Your task to perform on an android device: turn off data saver in the chrome app Image 0: 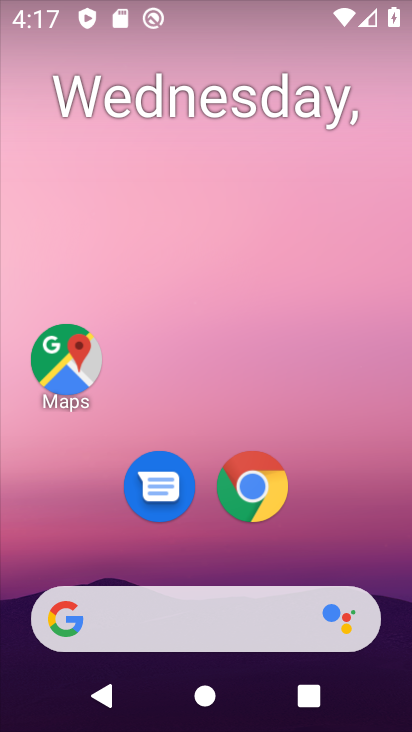
Step 0: click (250, 486)
Your task to perform on an android device: turn off data saver in the chrome app Image 1: 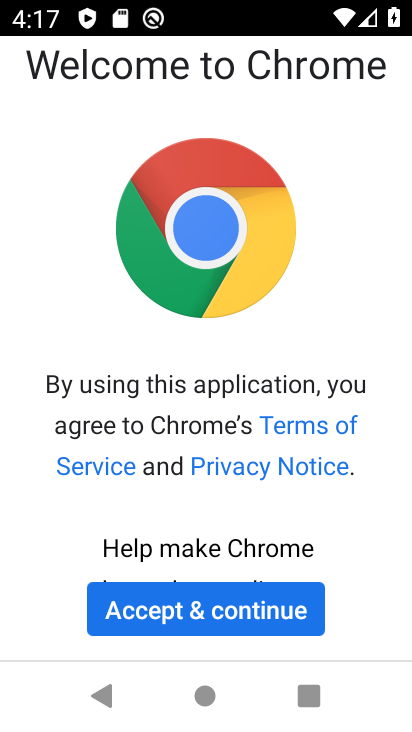
Step 1: click (213, 614)
Your task to perform on an android device: turn off data saver in the chrome app Image 2: 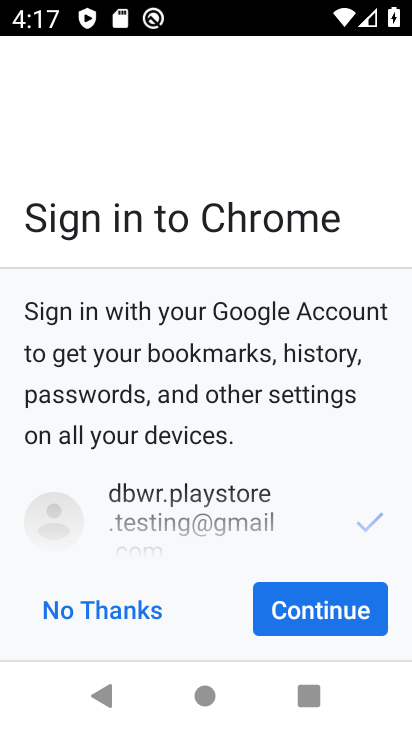
Step 2: click (300, 607)
Your task to perform on an android device: turn off data saver in the chrome app Image 3: 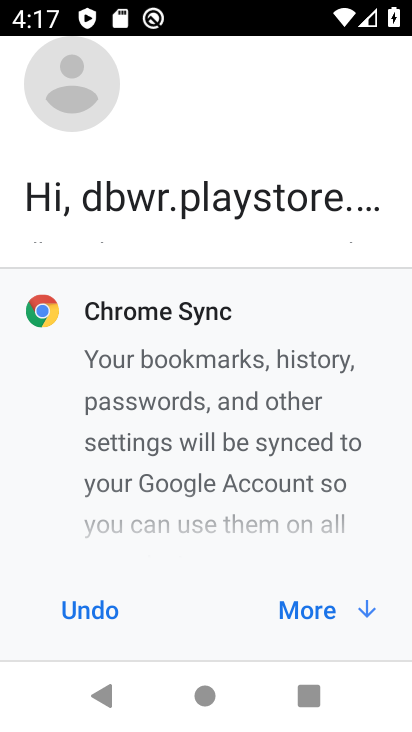
Step 3: click (300, 607)
Your task to perform on an android device: turn off data saver in the chrome app Image 4: 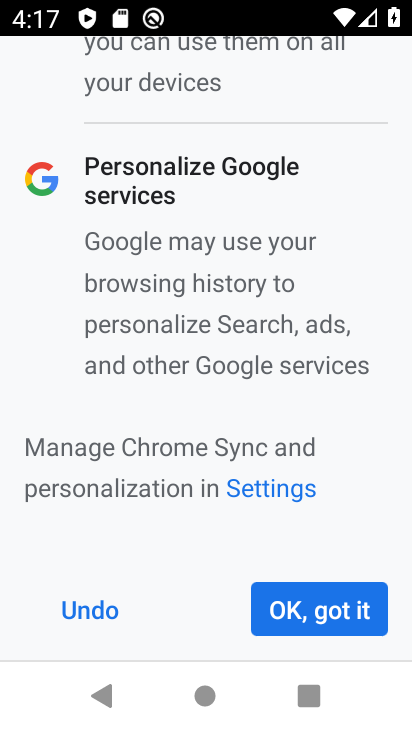
Step 4: click (300, 607)
Your task to perform on an android device: turn off data saver in the chrome app Image 5: 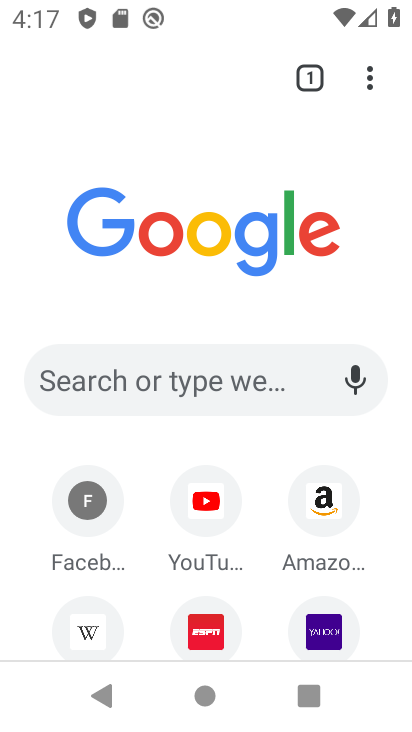
Step 5: click (367, 80)
Your task to perform on an android device: turn off data saver in the chrome app Image 6: 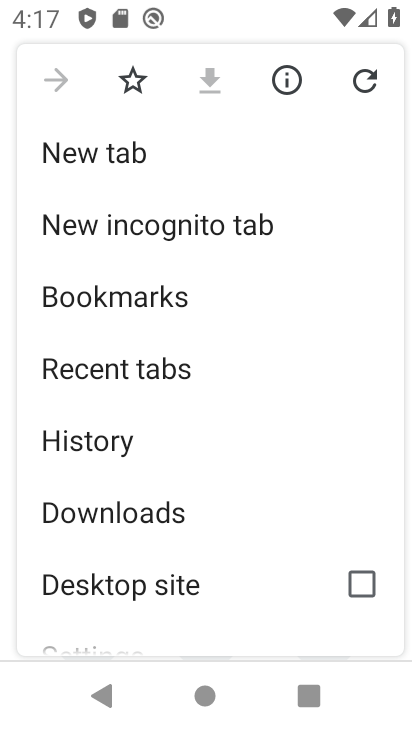
Step 6: drag from (183, 551) to (277, 399)
Your task to perform on an android device: turn off data saver in the chrome app Image 7: 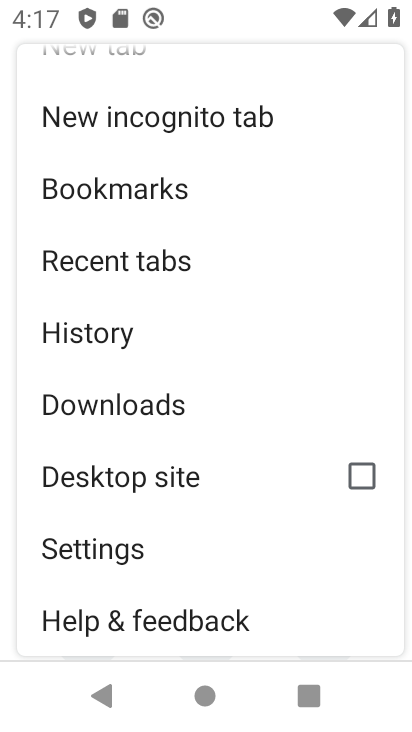
Step 7: click (127, 548)
Your task to perform on an android device: turn off data saver in the chrome app Image 8: 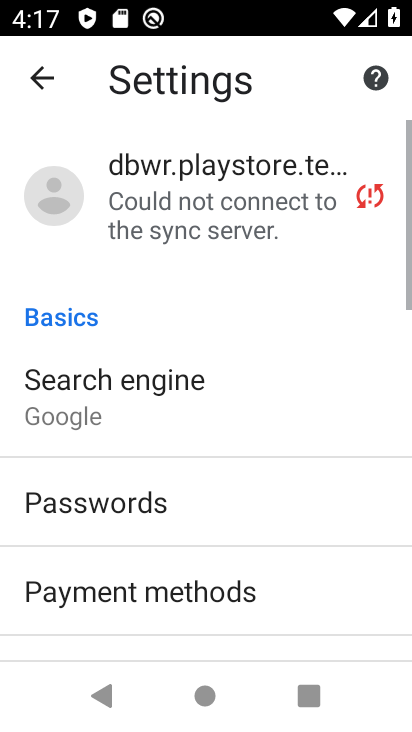
Step 8: drag from (193, 523) to (254, 396)
Your task to perform on an android device: turn off data saver in the chrome app Image 9: 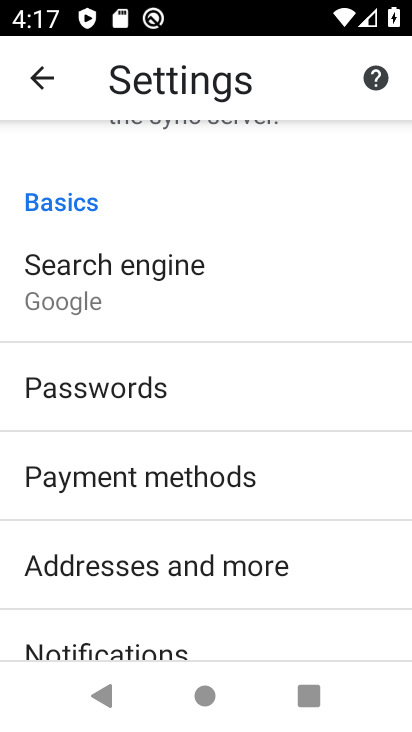
Step 9: drag from (208, 536) to (277, 385)
Your task to perform on an android device: turn off data saver in the chrome app Image 10: 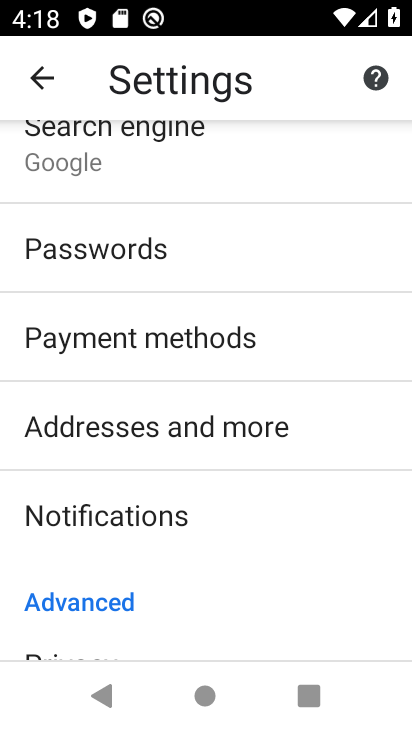
Step 10: drag from (203, 587) to (283, 387)
Your task to perform on an android device: turn off data saver in the chrome app Image 11: 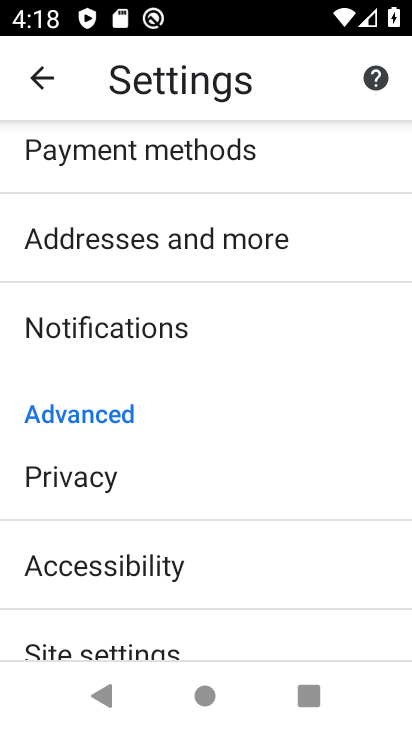
Step 11: drag from (224, 528) to (275, 405)
Your task to perform on an android device: turn off data saver in the chrome app Image 12: 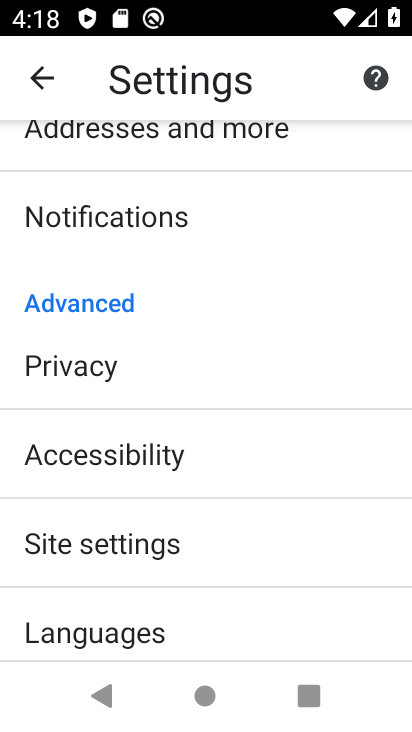
Step 12: drag from (195, 556) to (262, 445)
Your task to perform on an android device: turn off data saver in the chrome app Image 13: 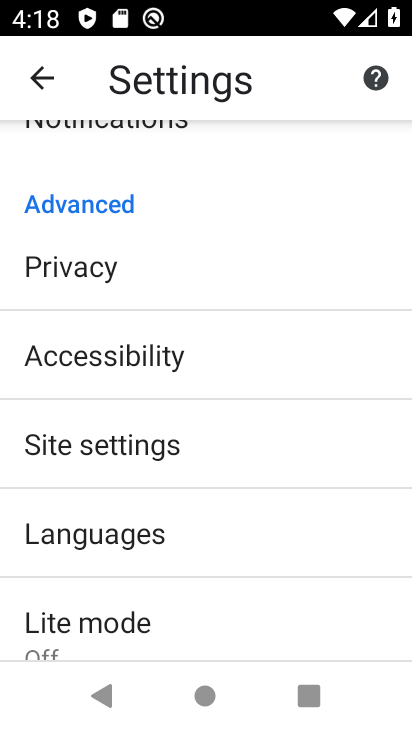
Step 13: drag from (155, 599) to (253, 482)
Your task to perform on an android device: turn off data saver in the chrome app Image 14: 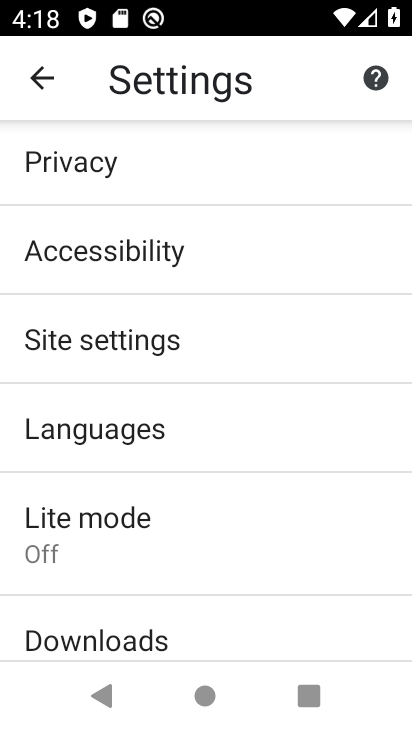
Step 14: click (115, 522)
Your task to perform on an android device: turn off data saver in the chrome app Image 15: 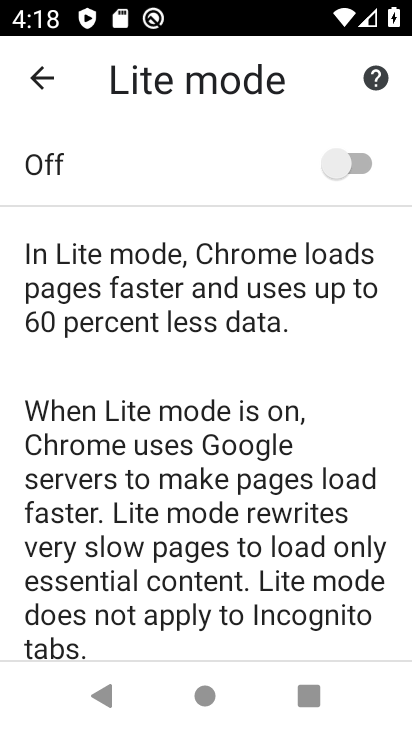
Step 15: task complete